Your task to perform on an android device: change the clock style Image 0: 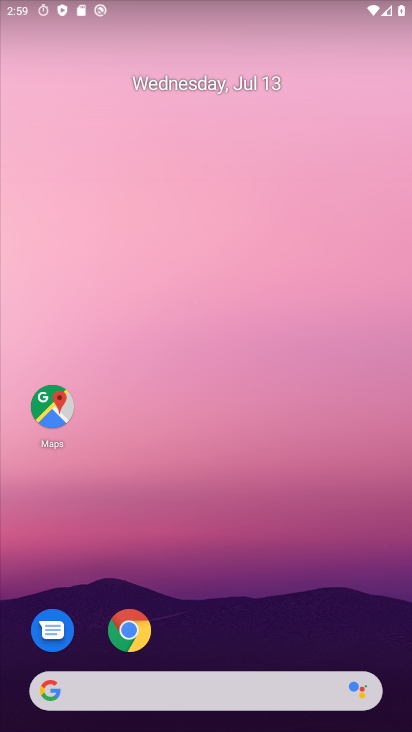
Step 0: drag from (47, 702) to (223, 55)
Your task to perform on an android device: change the clock style Image 1: 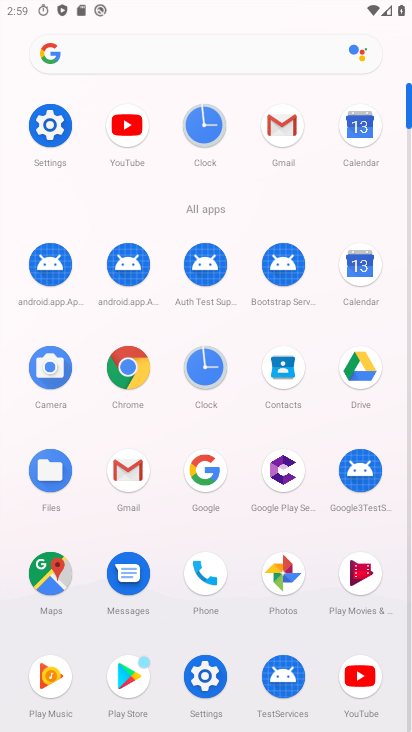
Step 1: click (202, 368)
Your task to perform on an android device: change the clock style Image 2: 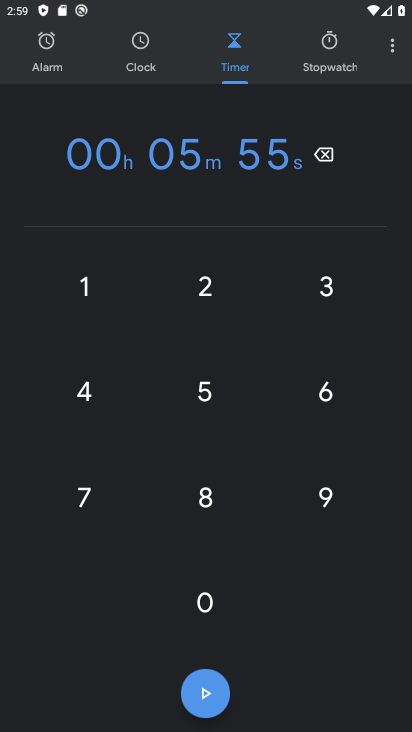
Step 2: click (387, 42)
Your task to perform on an android device: change the clock style Image 3: 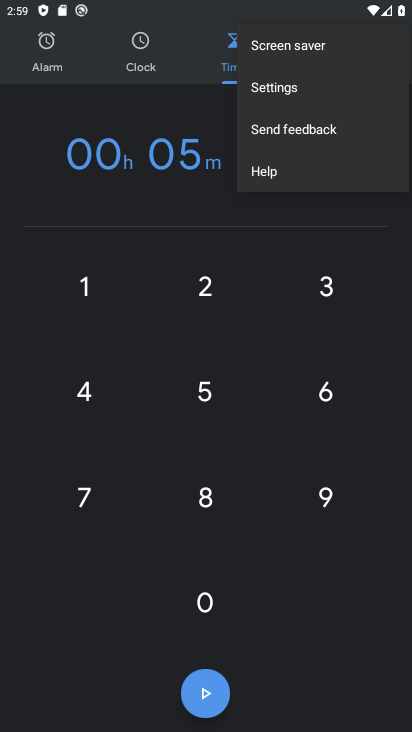
Step 3: click (133, 58)
Your task to perform on an android device: change the clock style Image 4: 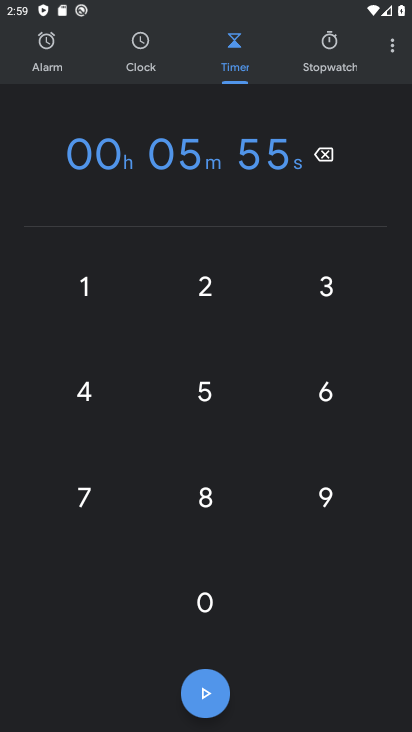
Step 4: click (380, 43)
Your task to perform on an android device: change the clock style Image 5: 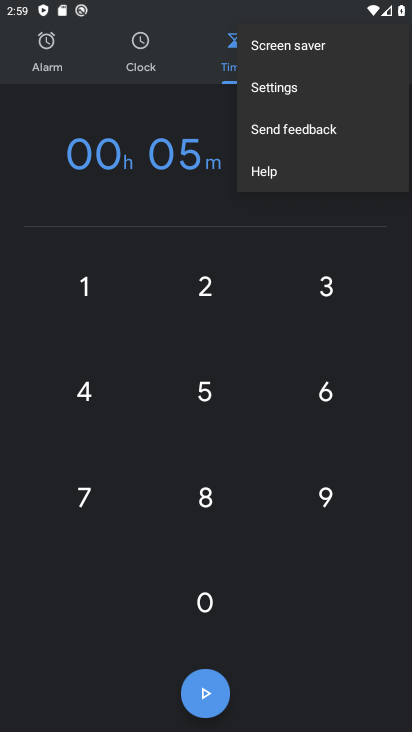
Step 5: click (128, 71)
Your task to perform on an android device: change the clock style Image 6: 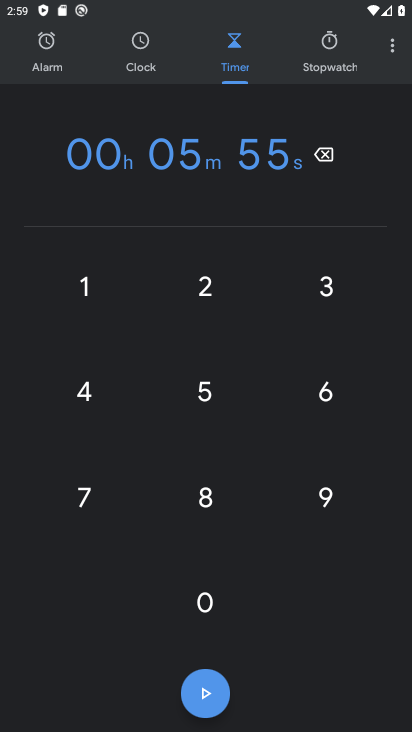
Step 6: click (136, 49)
Your task to perform on an android device: change the clock style Image 7: 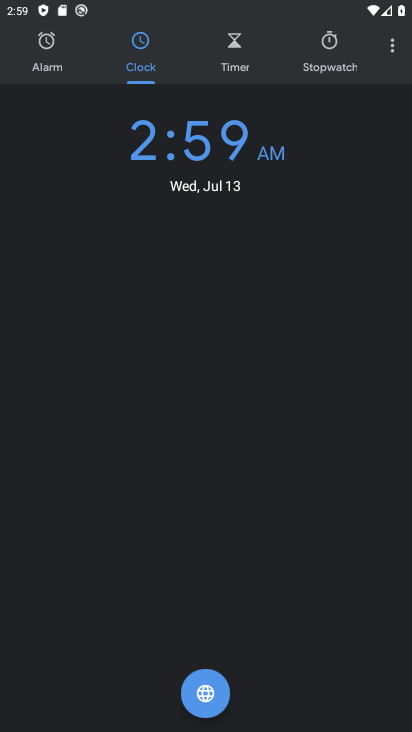
Step 7: click (400, 54)
Your task to perform on an android device: change the clock style Image 8: 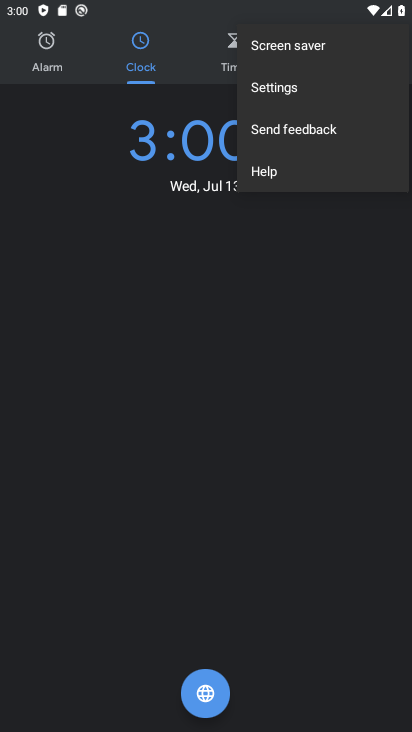
Step 8: click (270, 82)
Your task to perform on an android device: change the clock style Image 9: 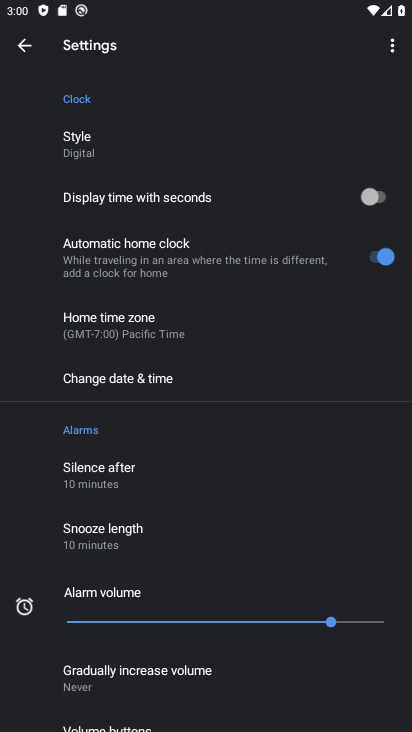
Step 9: click (114, 138)
Your task to perform on an android device: change the clock style Image 10: 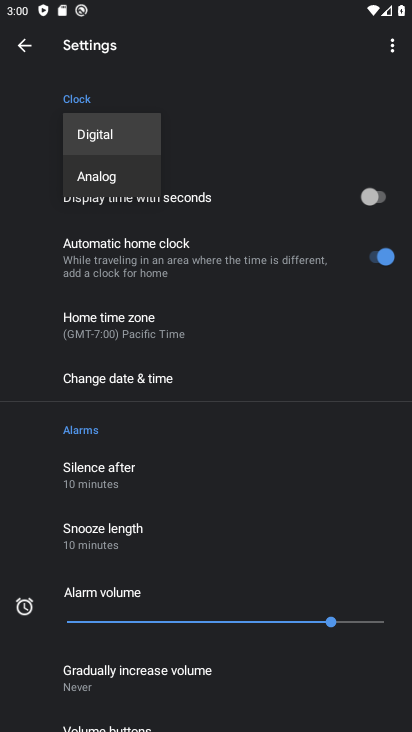
Step 10: click (115, 173)
Your task to perform on an android device: change the clock style Image 11: 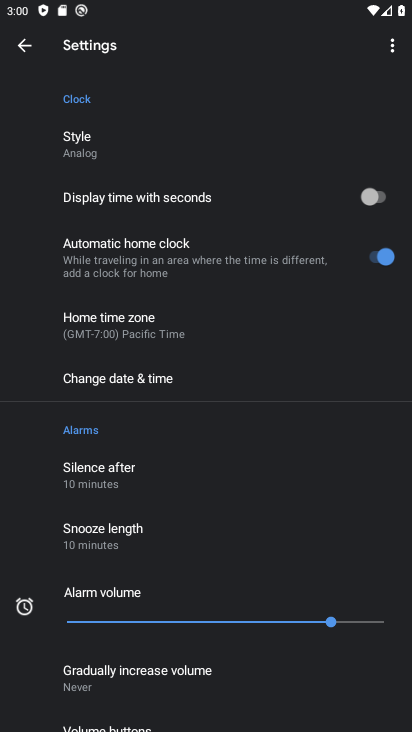
Step 11: task complete